Your task to perform on an android device: Open Reddit.com Image 0: 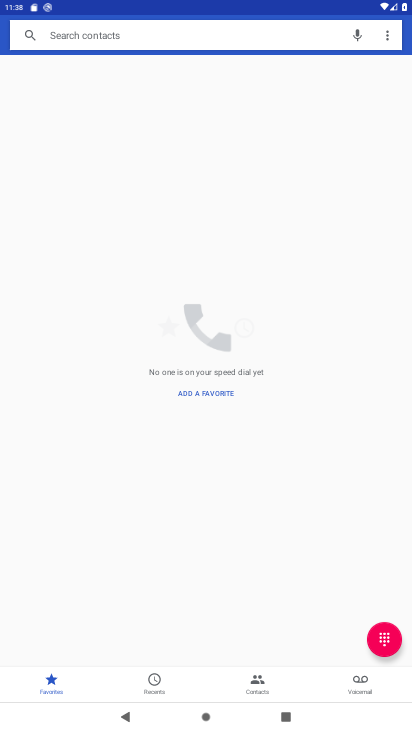
Step 0: press home button
Your task to perform on an android device: Open Reddit.com Image 1: 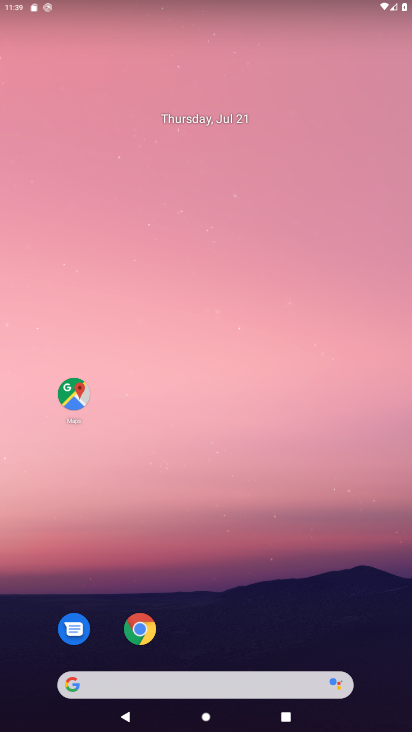
Step 1: click (141, 620)
Your task to perform on an android device: Open Reddit.com Image 2: 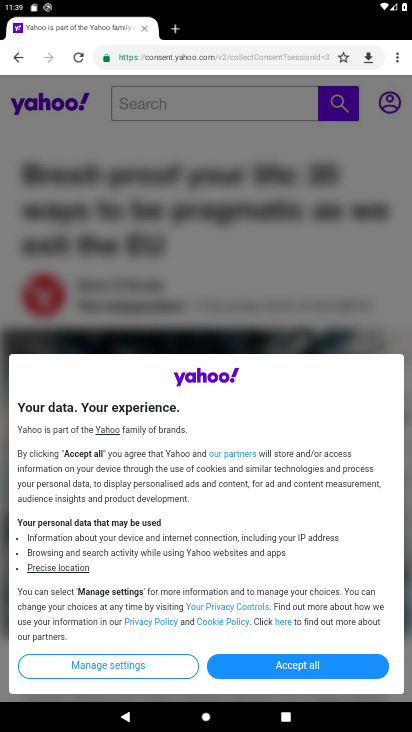
Step 2: click (163, 50)
Your task to perform on an android device: Open Reddit.com Image 3: 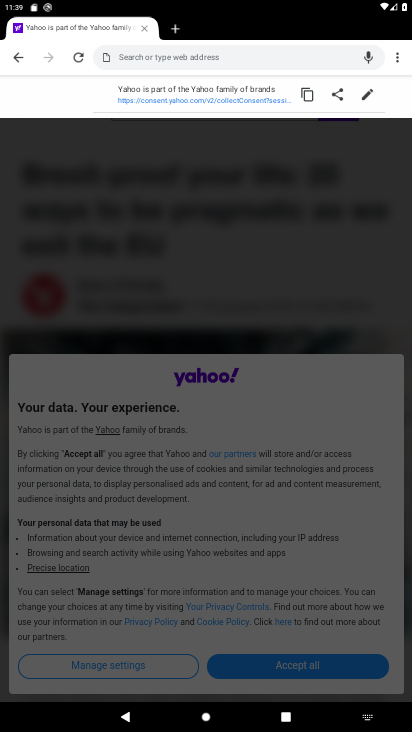
Step 3: type "Reddit.com"
Your task to perform on an android device: Open Reddit.com Image 4: 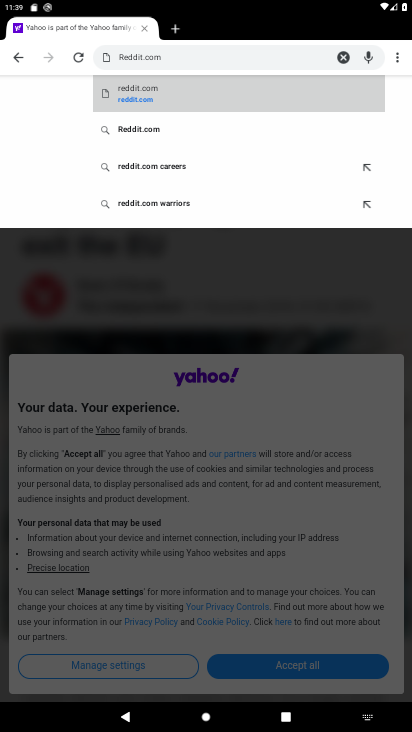
Step 4: click (194, 86)
Your task to perform on an android device: Open Reddit.com Image 5: 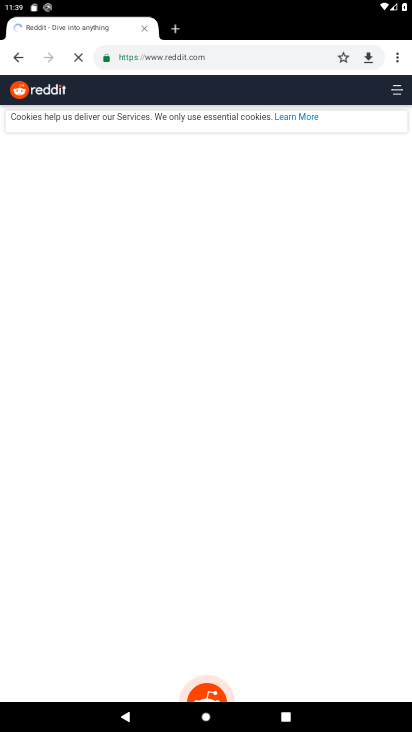
Step 5: task complete